Your task to perform on an android device: toggle location history Image 0: 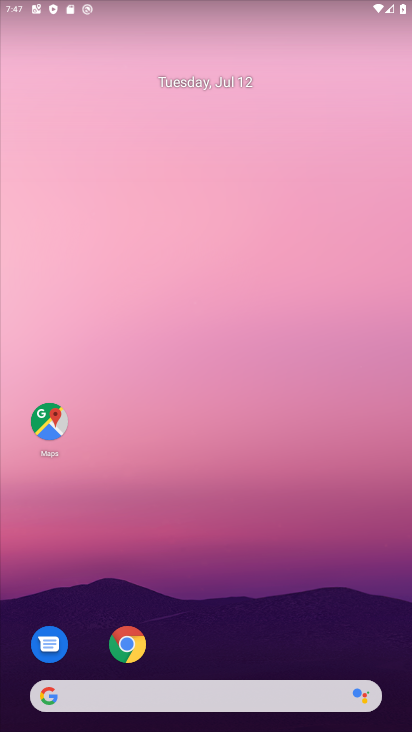
Step 0: drag from (178, 618) to (243, 60)
Your task to perform on an android device: toggle location history Image 1: 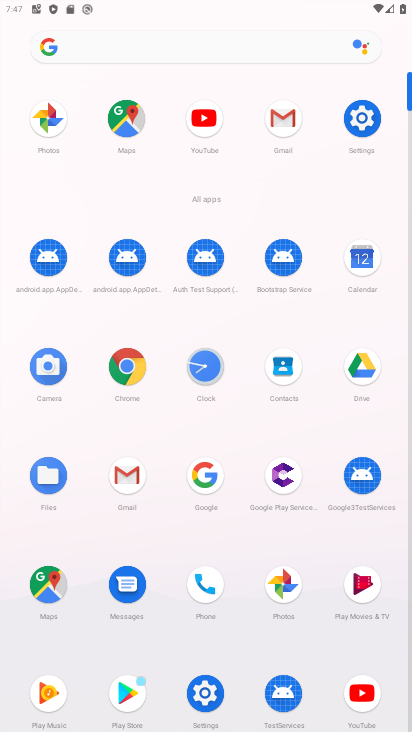
Step 1: click (201, 685)
Your task to perform on an android device: toggle location history Image 2: 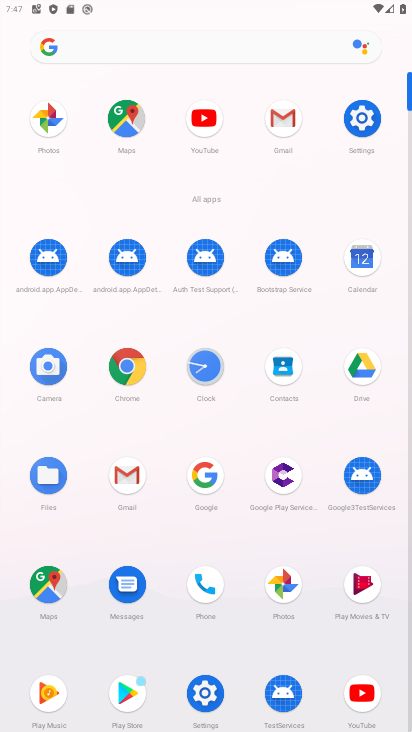
Step 2: click (201, 685)
Your task to perform on an android device: toggle location history Image 3: 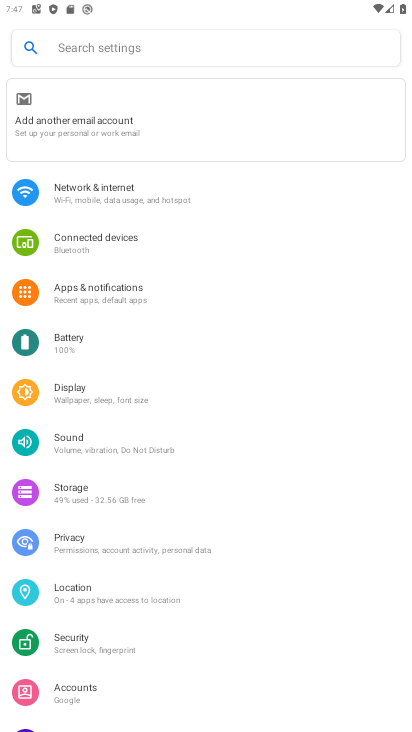
Step 3: drag from (139, 543) to (134, 351)
Your task to perform on an android device: toggle location history Image 4: 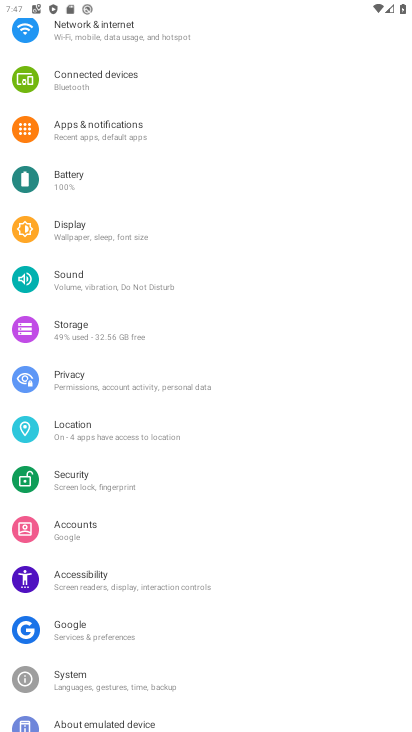
Step 4: click (122, 551)
Your task to perform on an android device: toggle location history Image 5: 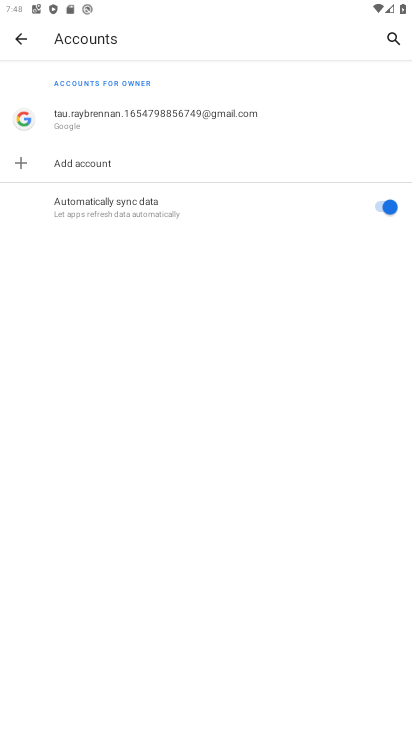
Step 5: click (24, 38)
Your task to perform on an android device: toggle location history Image 6: 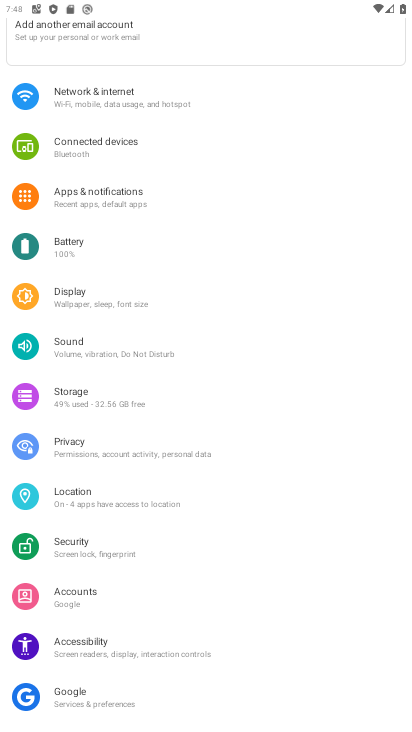
Step 6: click (97, 507)
Your task to perform on an android device: toggle location history Image 7: 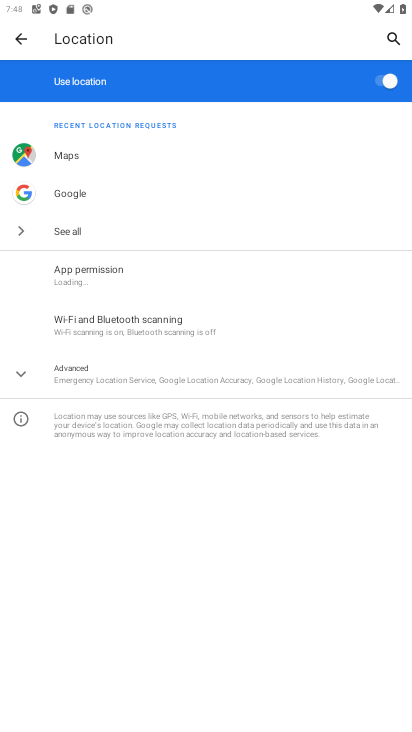
Step 7: click (98, 367)
Your task to perform on an android device: toggle location history Image 8: 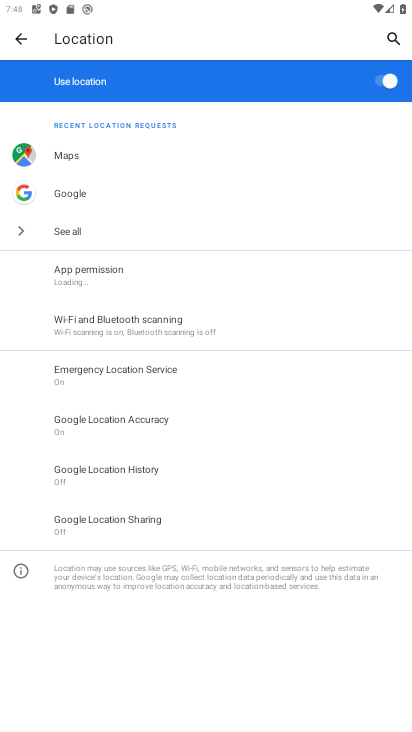
Step 8: click (113, 472)
Your task to perform on an android device: toggle location history Image 9: 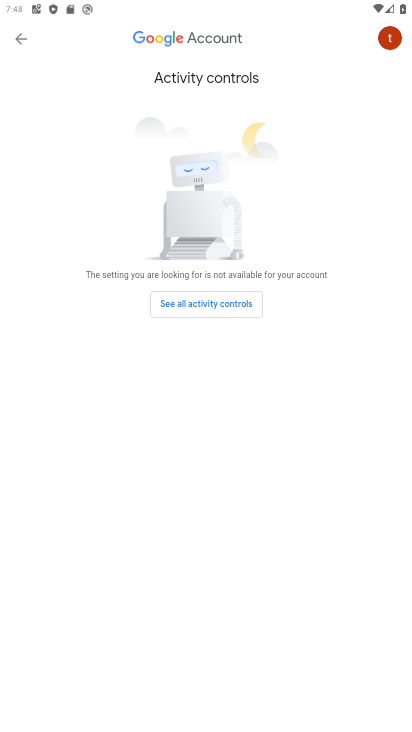
Step 9: click (204, 311)
Your task to perform on an android device: toggle location history Image 10: 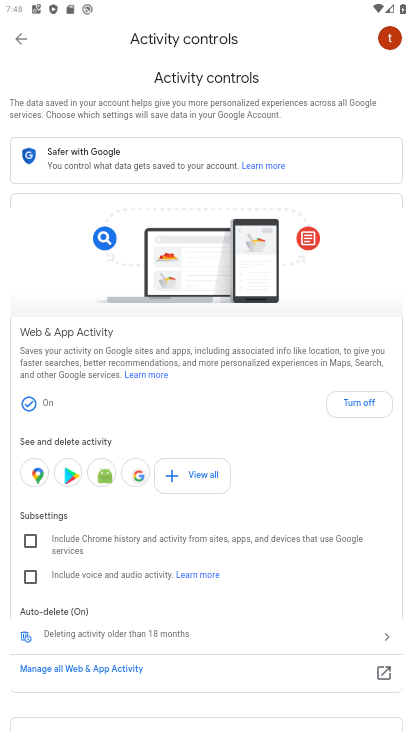
Step 10: click (355, 411)
Your task to perform on an android device: toggle location history Image 11: 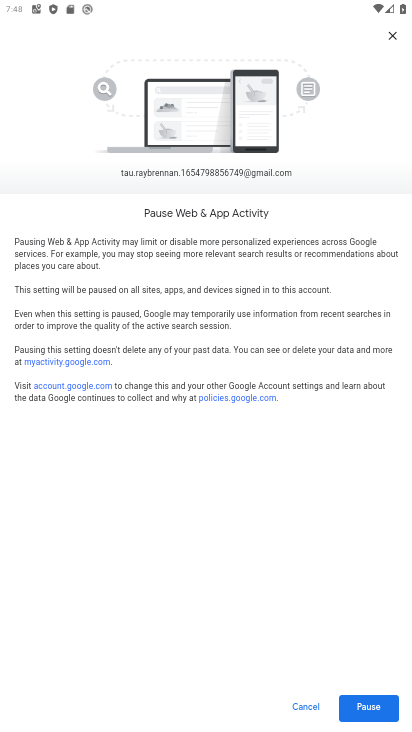
Step 11: drag from (236, 573) to (332, 265)
Your task to perform on an android device: toggle location history Image 12: 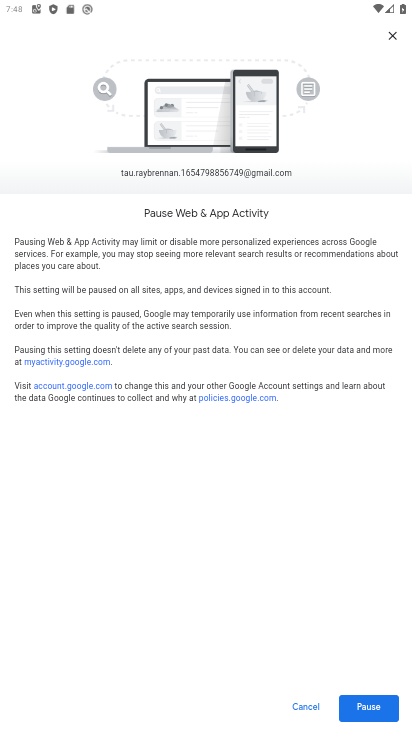
Step 12: click (371, 703)
Your task to perform on an android device: toggle location history Image 13: 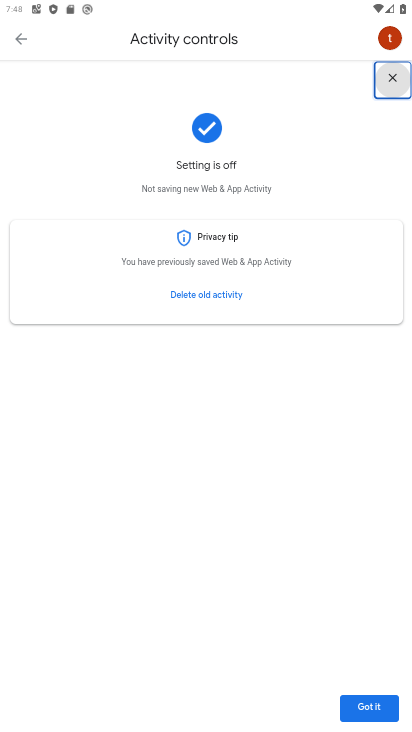
Step 13: click (374, 702)
Your task to perform on an android device: toggle location history Image 14: 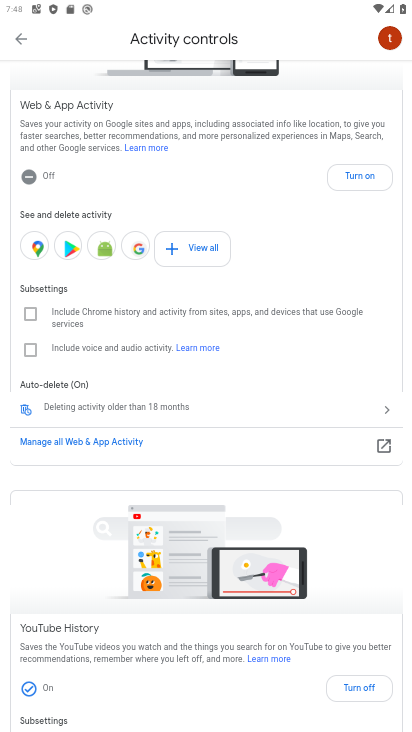
Step 14: drag from (171, 662) to (335, 35)
Your task to perform on an android device: toggle location history Image 15: 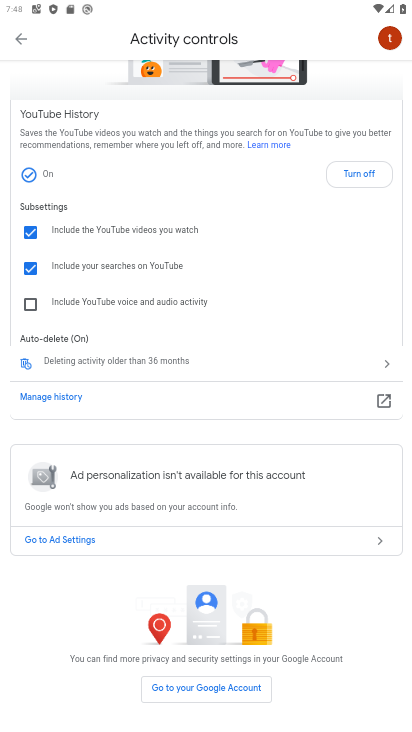
Step 15: drag from (191, 584) to (207, 349)
Your task to perform on an android device: toggle location history Image 16: 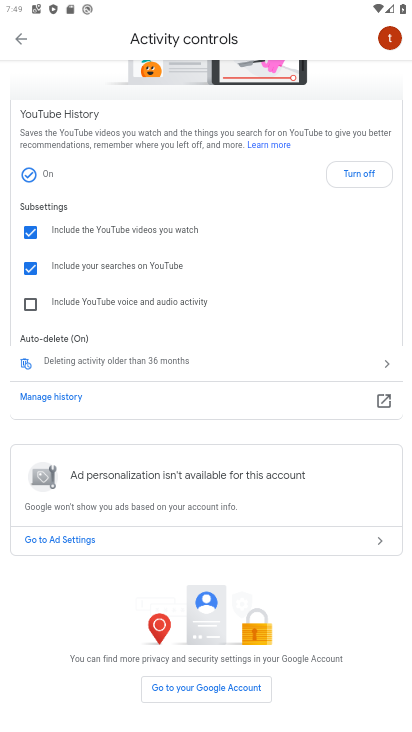
Step 16: drag from (190, 640) to (194, 166)
Your task to perform on an android device: toggle location history Image 17: 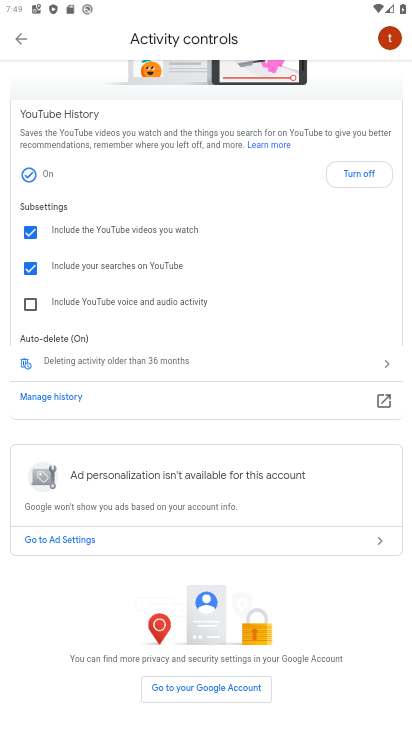
Step 17: drag from (241, 571) to (215, 303)
Your task to perform on an android device: toggle location history Image 18: 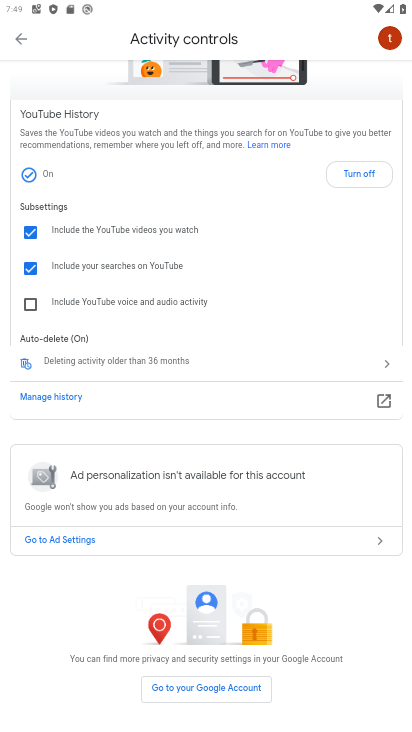
Step 18: drag from (217, 196) to (365, 689)
Your task to perform on an android device: toggle location history Image 19: 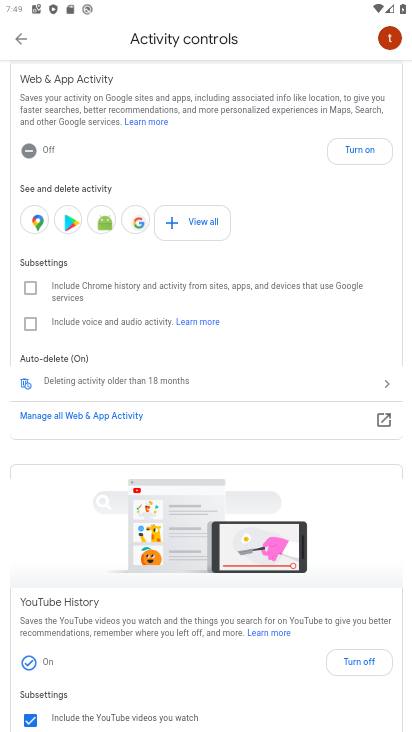
Step 19: drag from (197, 122) to (291, 728)
Your task to perform on an android device: toggle location history Image 20: 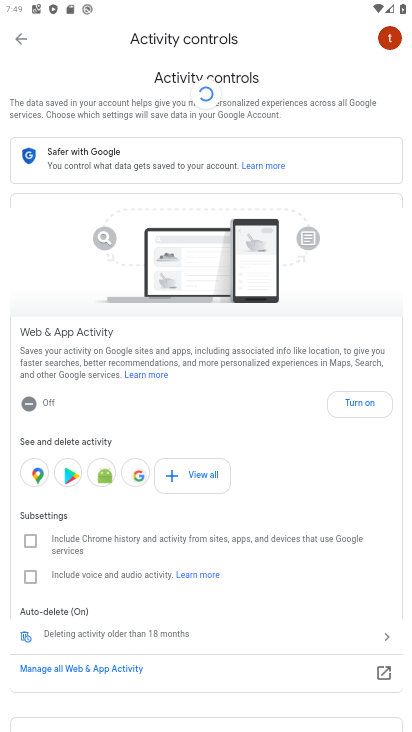
Step 20: drag from (235, 167) to (408, 710)
Your task to perform on an android device: toggle location history Image 21: 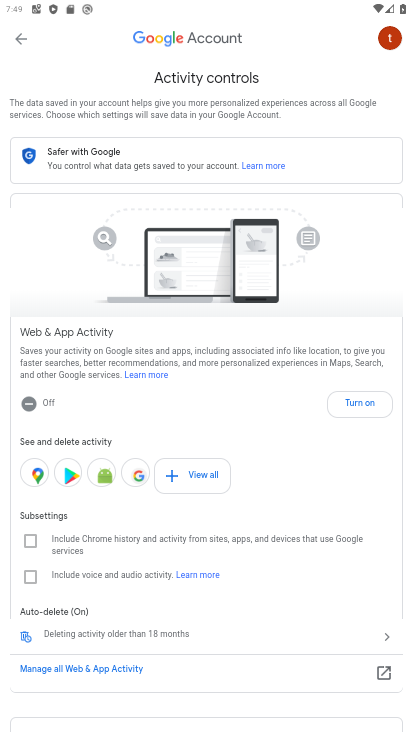
Step 21: drag from (279, 567) to (392, 723)
Your task to perform on an android device: toggle location history Image 22: 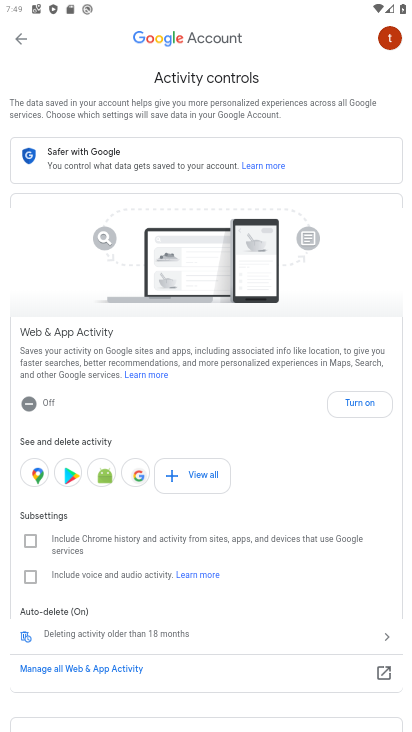
Step 22: click (339, 401)
Your task to perform on an android device: toggle location history Image 23: 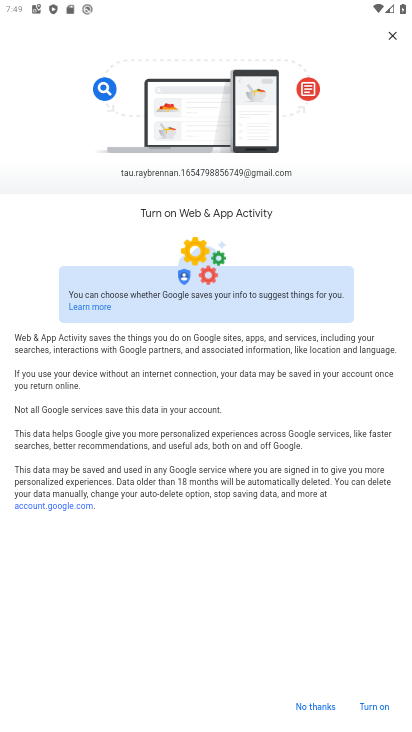
Step 23: click (367, 712)
Your task to perform on an android device: toggle location history Image 24: 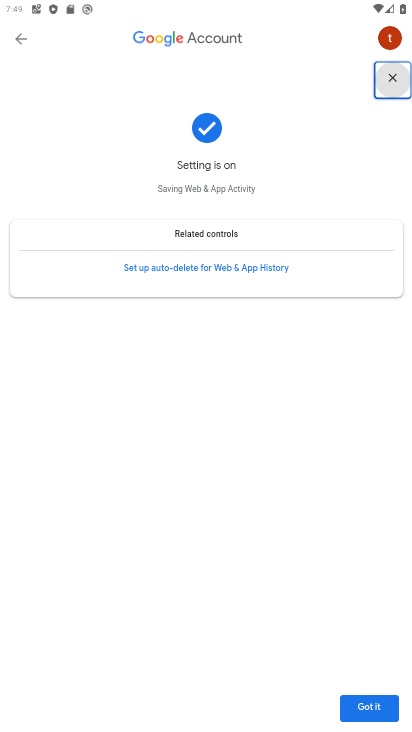
Step 24: click (364, 712)
Your task to perform on an android device: toggle location history Image 25: 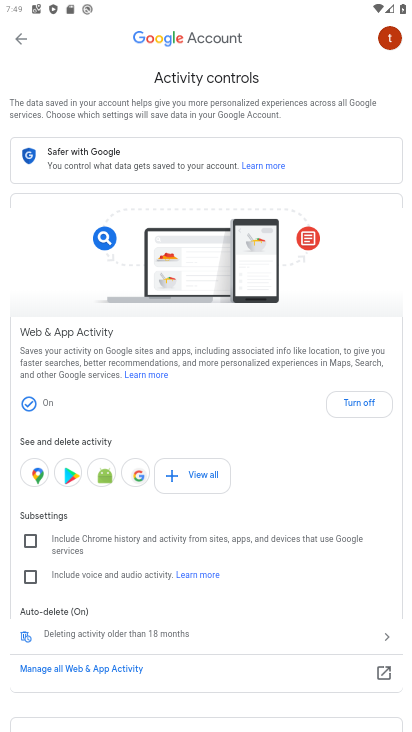
Step 25: task complete